Your task to perform on an android device: Search for seafood restaurants on Google Maps Image 0: 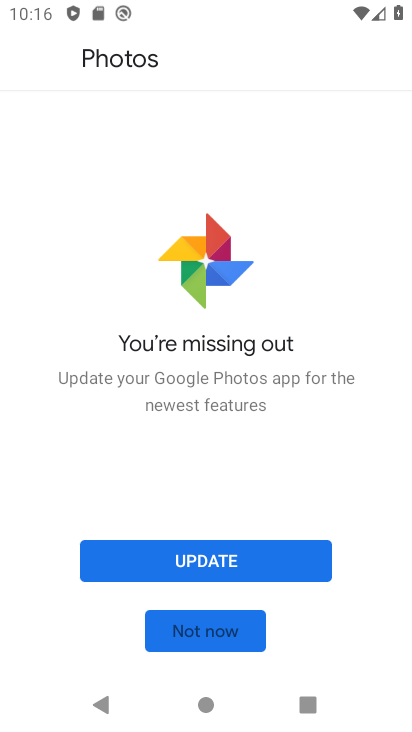
Step 0: press home button
Your task to perform on an android device: Search for seafood restaurants on Google Maps Image 1: 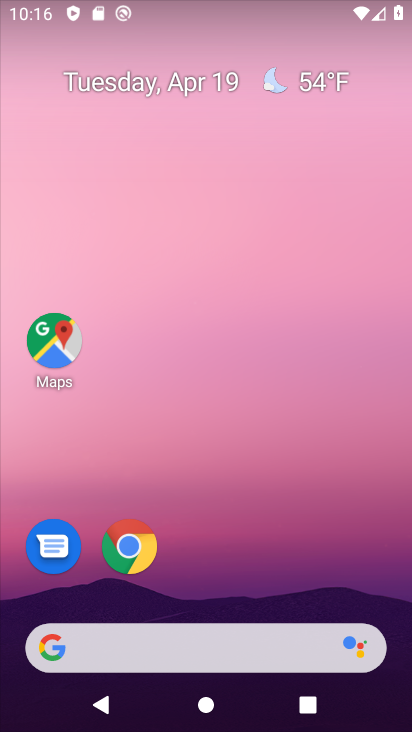
Step 1: click (46, 336)
Your task to perform on an android device: Search for seafood restaurants on Google Maps Image 2: 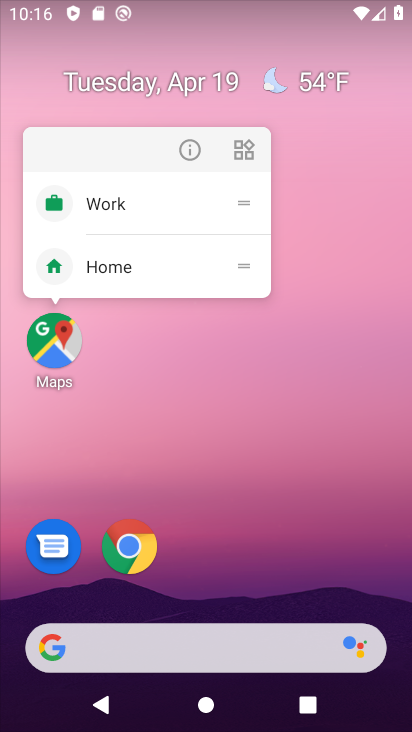
Step 2: click (46, 336)
Your task to perform on an android device: Search for seafood restaurants on Google Maps Image 3: 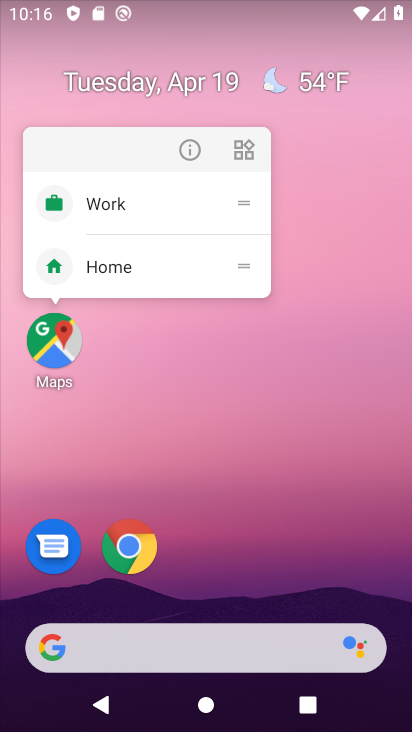
Step 3: click (46, 336)
Your task to perform on an android device: Search for seafood restaurants on Google Maps Image 4: 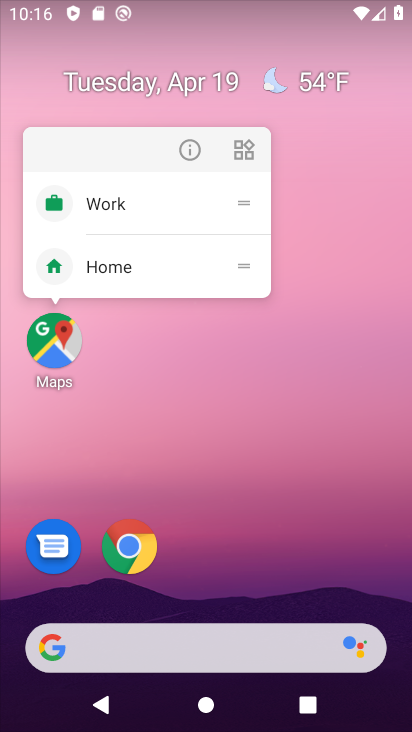
Step 4: click (64, 345)
Your task to perform on an android device: Search for seafood restaurants on Google Maps Image 5: 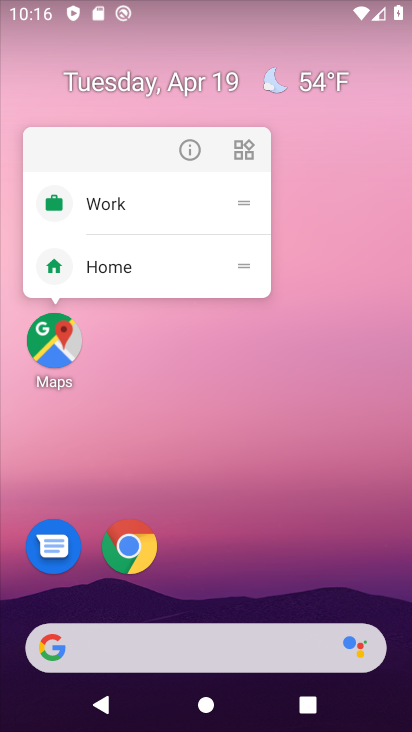
Step 5: drag from (241, 680) to (199, 4)
Your task to perform on an android device: Search for seafood restaurants on Google Maps Image 6: 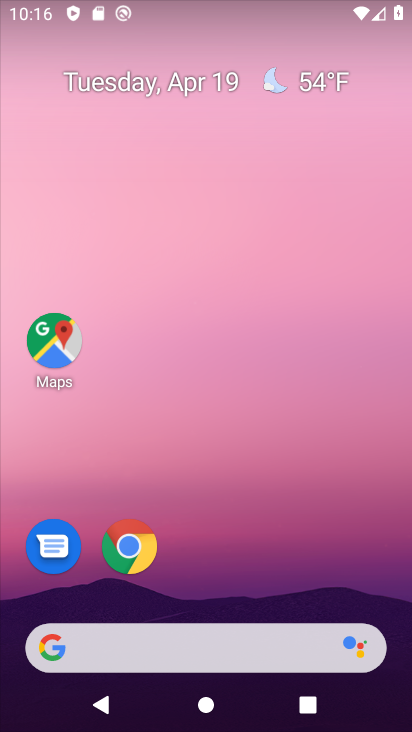
Step 6: drag from (272, 707) to (255, 17)
Your task to perform on an android device: Search for seafood restaurants on Google Maps Image 7: 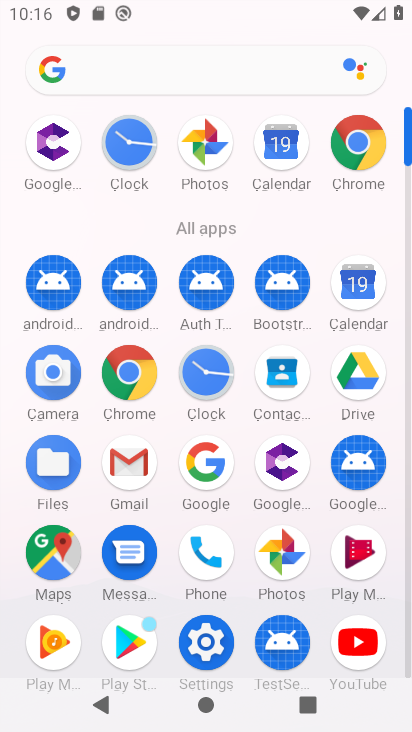
Step 7: click (55, 577)
Your task to perform on an android device: Search for seafood restaurants on Google Maps Image 8: 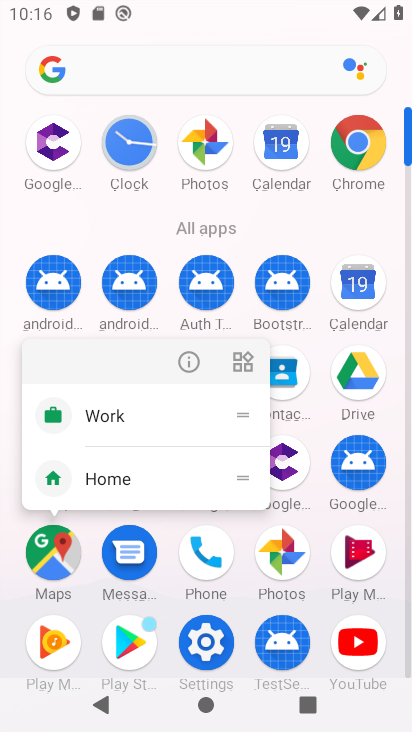
Step 8: click (55, 577)
Your task to perform on an android device: Search for seafood restaurants on Google Maps Image 9: 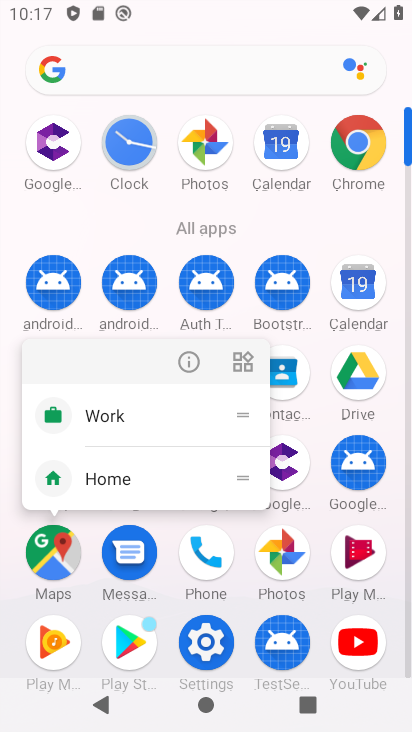
Step 9: click (41, 560)
Your task to perform on an android device: Search for seafood restaurants on Google Maps Image 10: 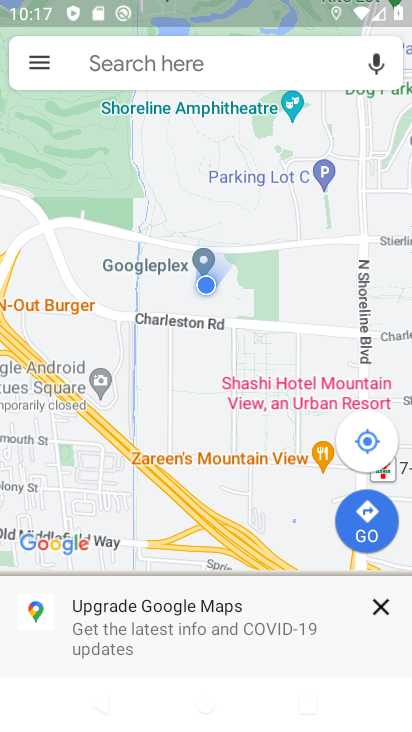
Step 10: click (168, 70)
Your task to perform on an android device: Search for seafood restaurants on Google Maps Image 11: 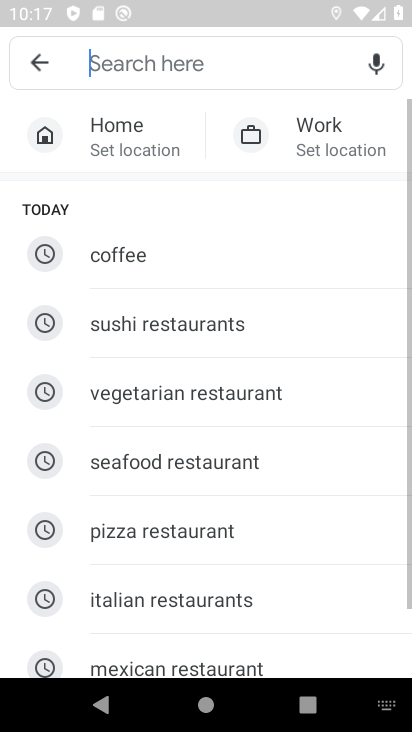
Step 11: click (204, 471)
Your task to perform on an android device: Search for seafood restaurants on Google Maps Image 12: 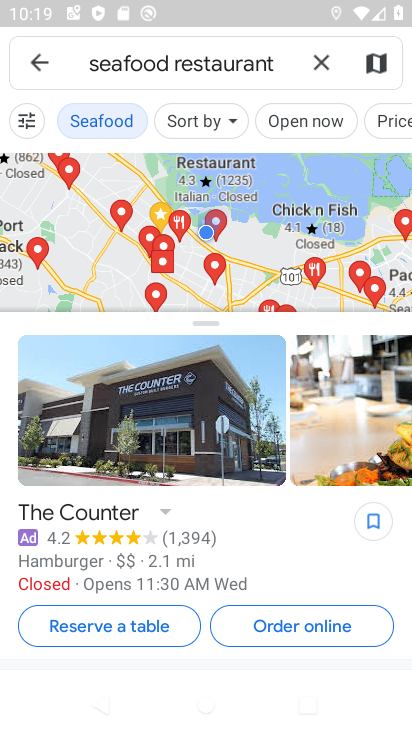
Step 12: task complete